Your task to perform on an android device: Open calendar and show me the fourth week of next month Image 0: 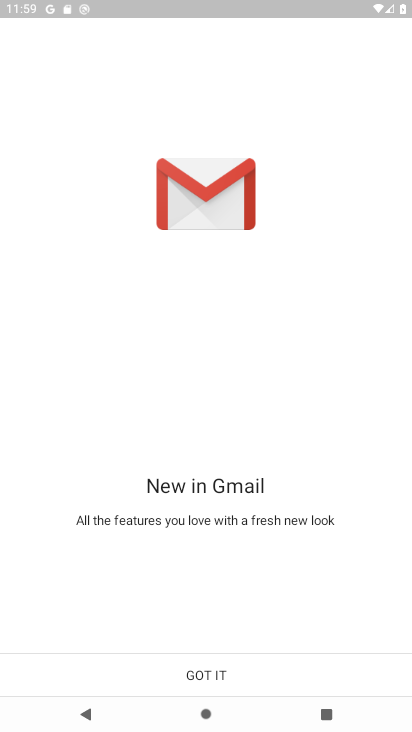
Step 0: press home button
Your task to perform on an android device: Open calendar and show me the fourth week of next month Image 1: 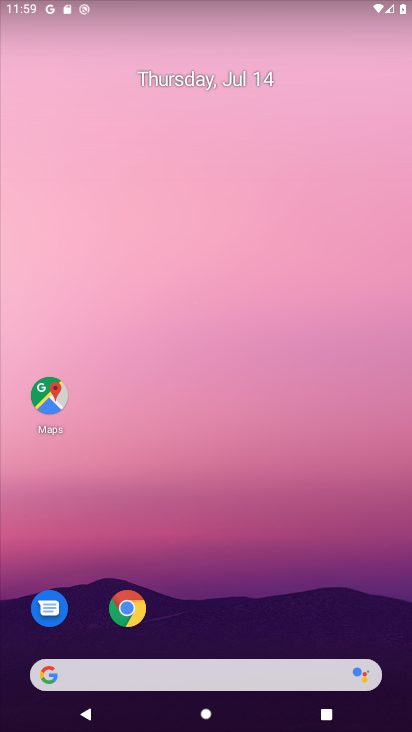
Step 1: drag from (227, 542) to (218, 7)
Your task to perform on an android device: Open calendar and show me the fourth week of next month Image 2: 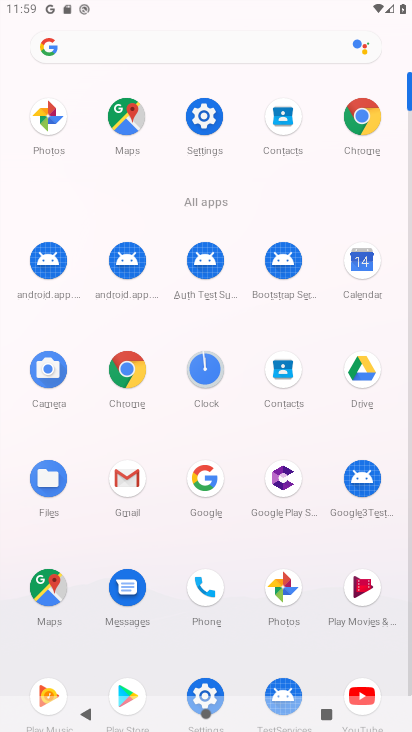
Step 2: click (362, 262)
Your task to perform on an android device: Open calendar and show me the fourth week of next month Image 3: 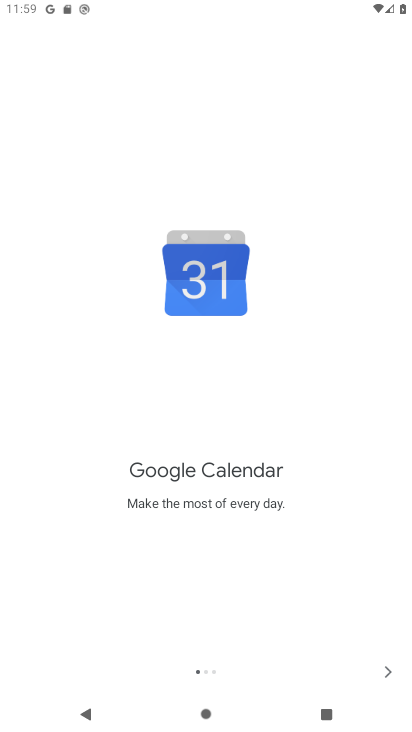
Step 3: click (389, 673)
Your task to perform on an android device: Open calendar and show me the fourth week of next month Image 4: 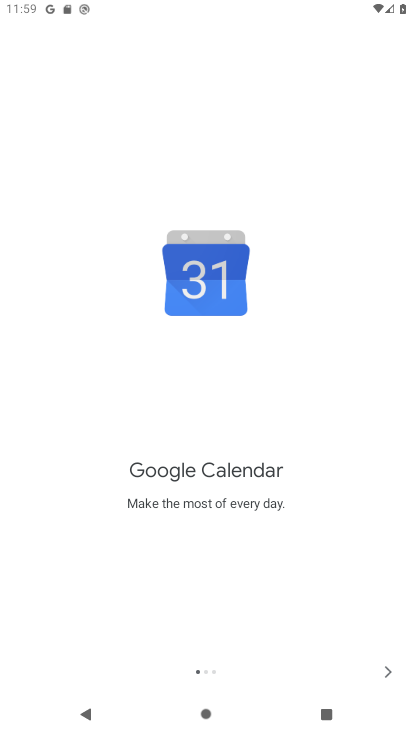
Step 4: click (389, 673)
Your task to perform on an android device: Open calendar and show me the fourth week of next month Image 5: 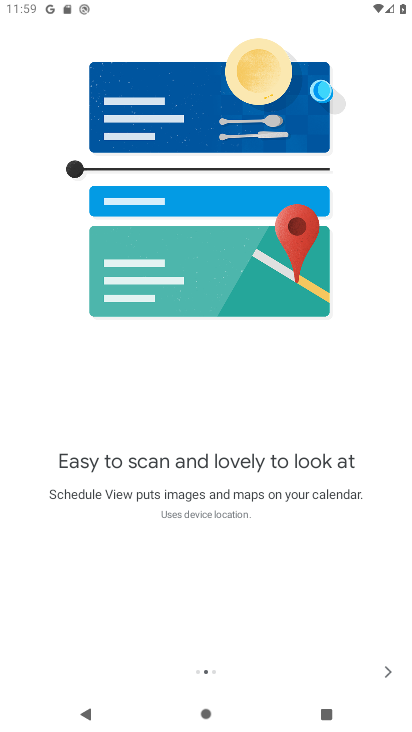
Step 5: click (389, 673)
Your task to perform on an android device: Open calendar and show me the fourth week of next month Image 6: 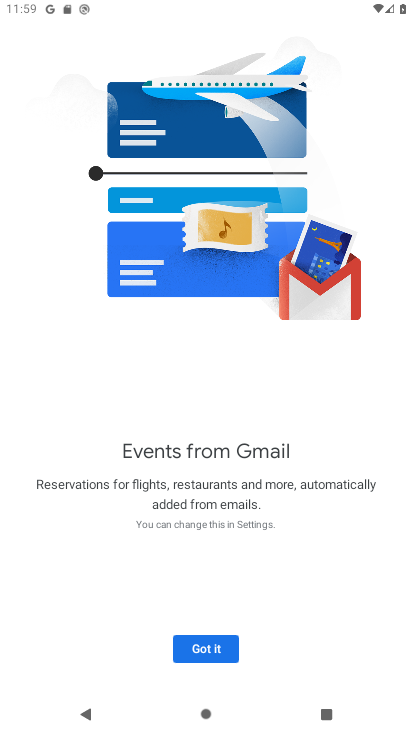
Step 6: click (213, 640)
Your task to perform on an android device: Open calendar and show me the fourth week of next month Image 7: 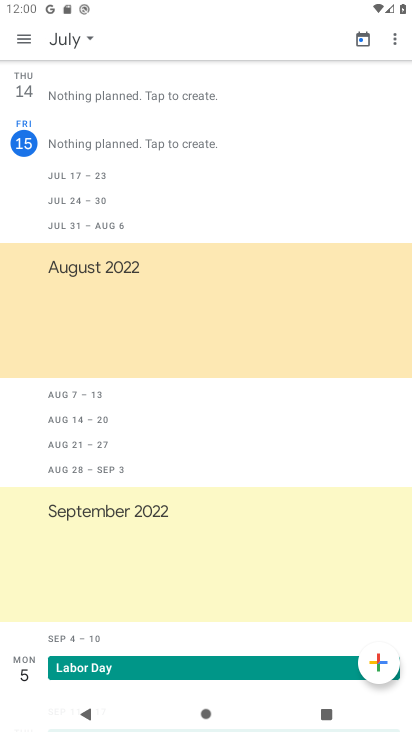
Step 7: click (22, 31)
Your task to perform on an android device: Open calendar and show me the fourth week of next month Image 8: 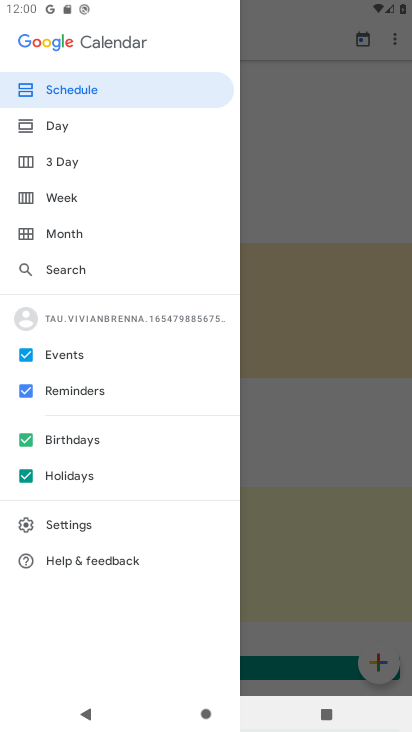
Step 8: click (62, 192)
Your task to perform on an android device: Open calendar and show me the fourth week of next month Image 9: 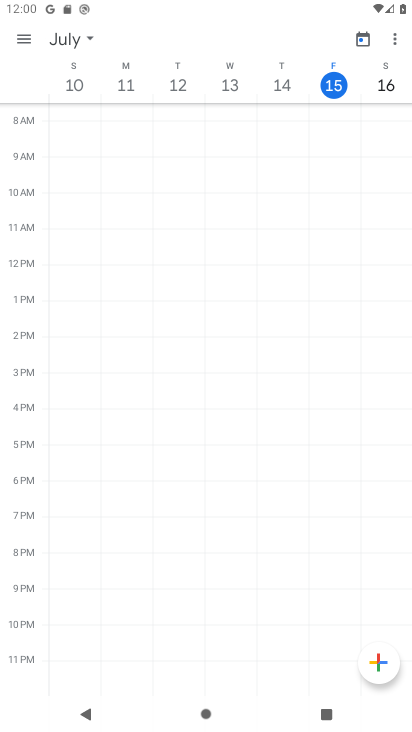
Step 9: click (83, 33)
Your task to perform on an android device: Open calendar and show me the fourth week of next month Image 10: 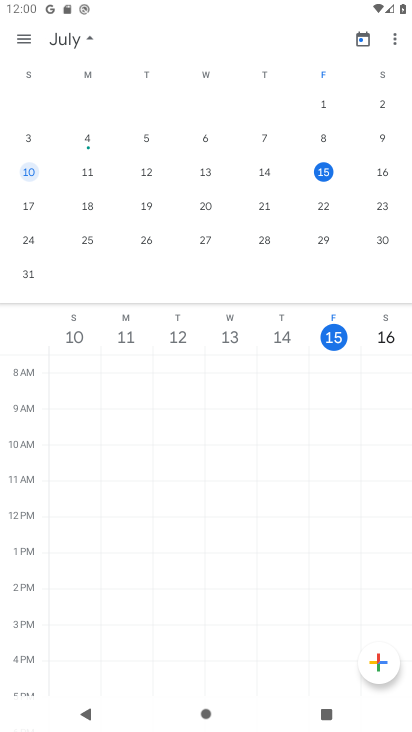
Step 10: drag from (349, 205) to (19, 141)
Your task to perform on an android device: Open calendar and show me the fourth week of next month Image 11: 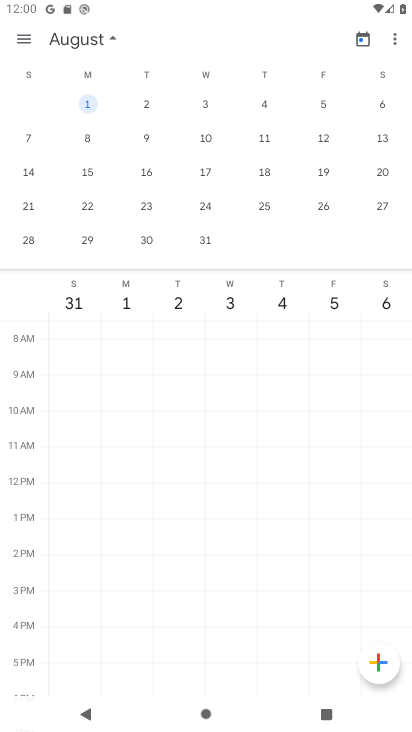
Step 11: click (91, 211)
Your task to perform on an android device: Open calendar and show me the fourth week of next month Image 12: 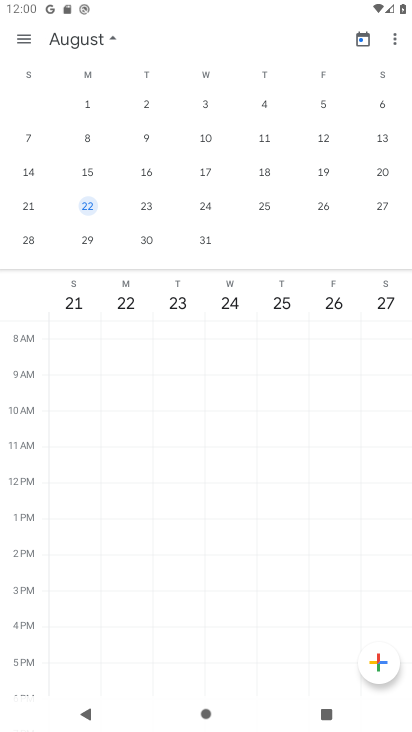
Step 12: task complete